Your task to perform on an android device: snooze an email in the gmail app Image 0: 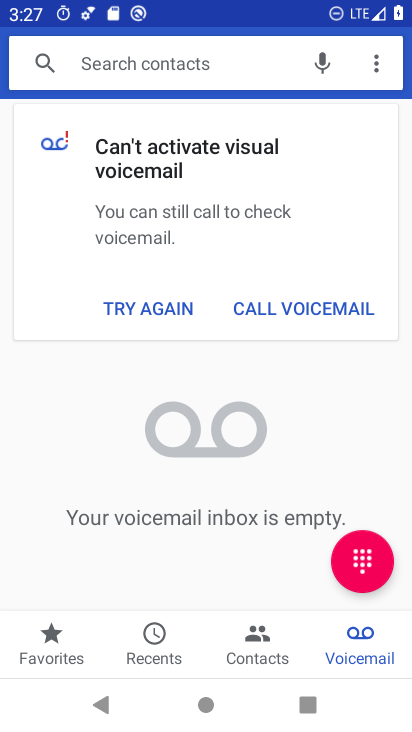
Step 0: press home button
Your task to perform on an android device: snooze an email in the gmail app Image 1: 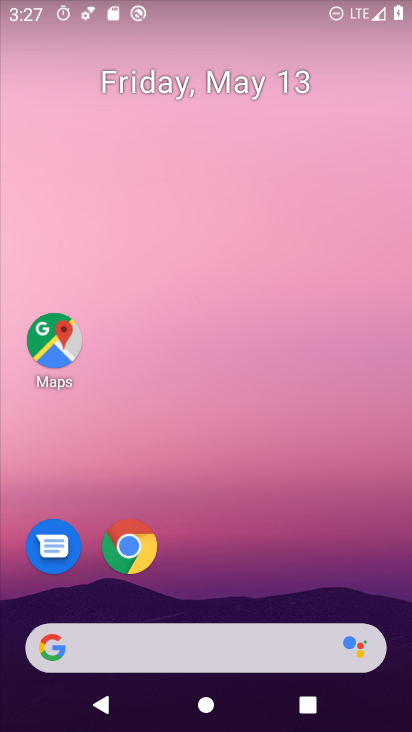
Step 1: drag from (206, 576) to (245, 256)
Your task to perform on an android device: snooze an email in the gmail app Image 2: 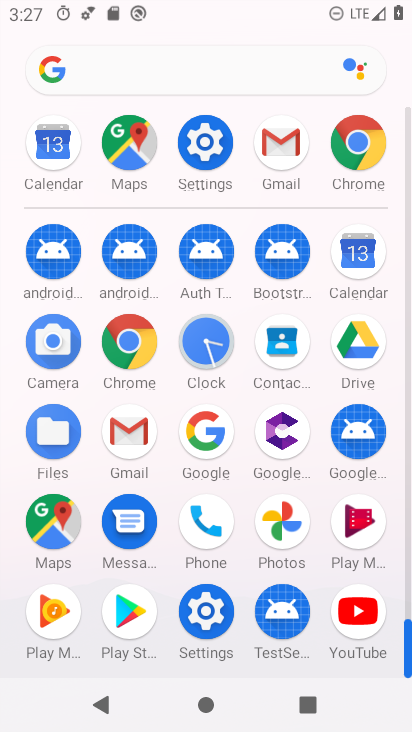
Step 2: click (141, 449)
Your task to perform on an android device: snooze an email in the gmail app Image 3: 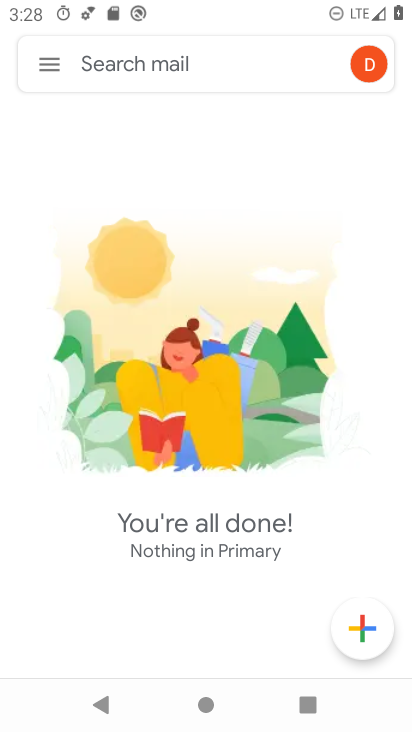
Step 3: click (58, 63)
Your task to perform on an android device: snooze an email in the gmail app Image 4: 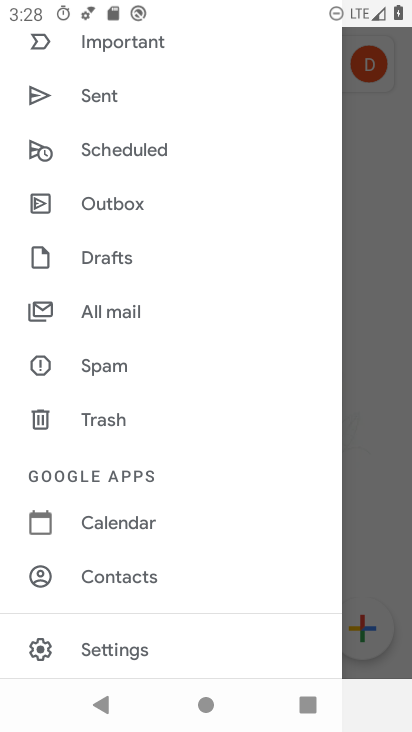
Step 4: click (131, 308)
Your task to perform on an android device: snooze an email in the gmail app Image 5: 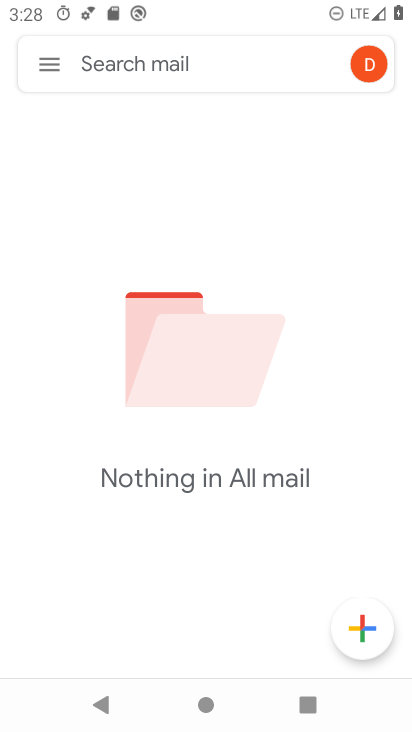
Step 5: task complete